Your task to perform on an android device: Open internet settings Image 0: 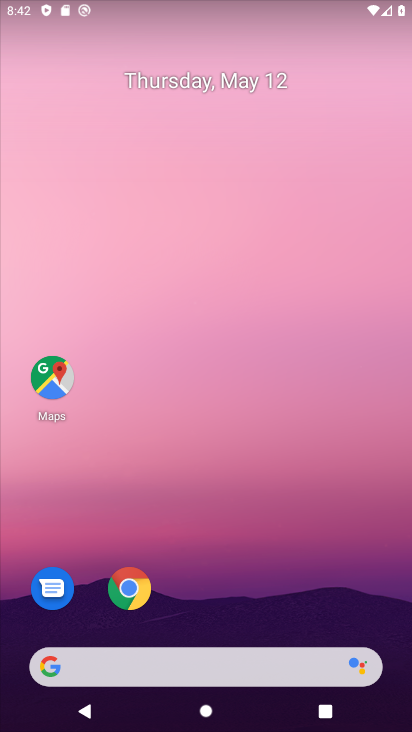
Step 0: drag from (356, 556) to (293, 127)
Your task to perform on an android device: Open internet settings Image 1: 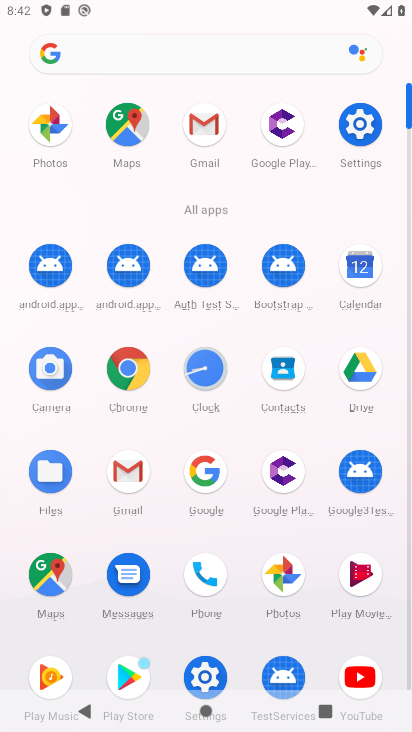
Step 1: click (363, 123)
Your task to perform on an android device: Open internet settings Image 2: 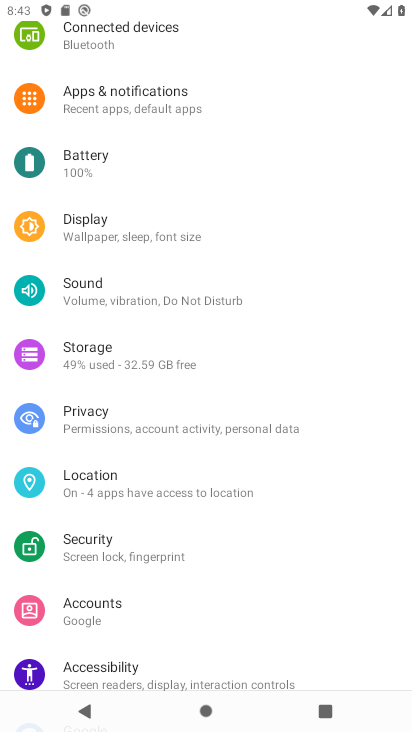
Step 2: drag from (140, 292) to (210, 441)
Your task to perform on an android device: Open internet settings Image 3: 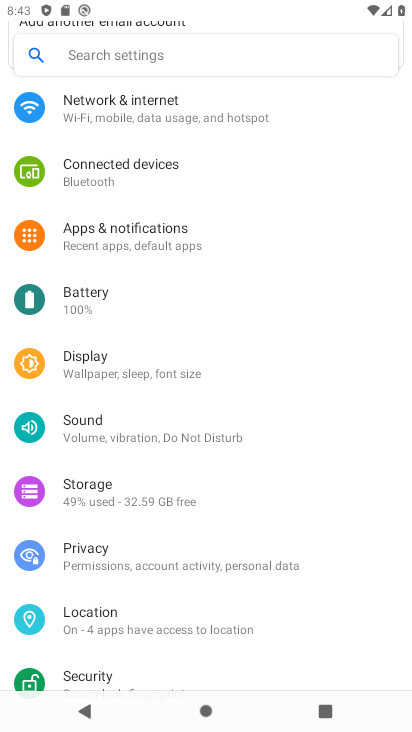
Step 3: click (127, 98)
Your task to perform on an android device: Open internet settings Image 4: 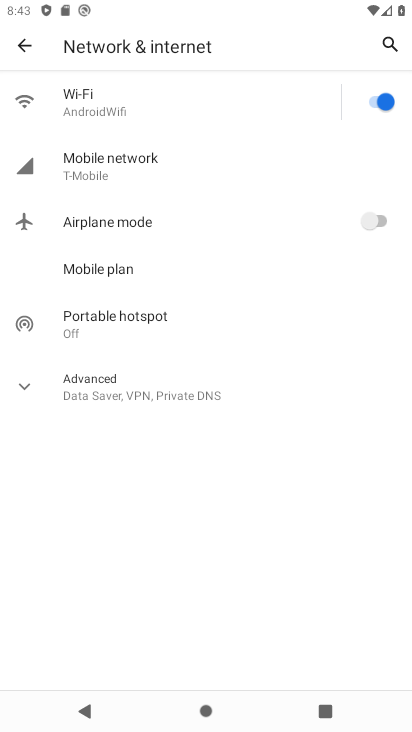
Step 4: task complete